Your task to perform on an android device: turn off notifications in google photos Image 0: 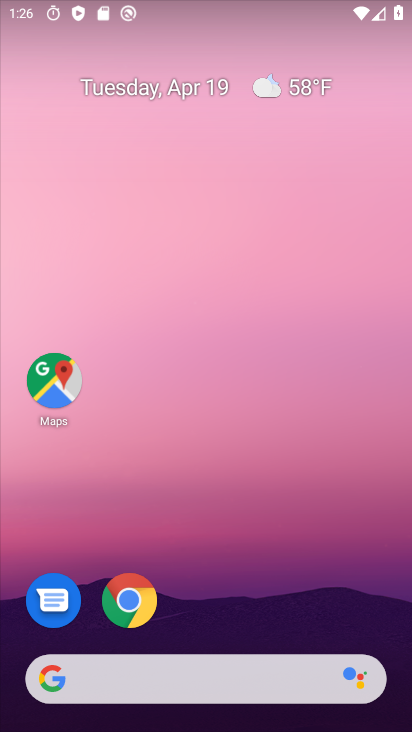
Step 0: drag from (215, 717) to (318, 185)
Your task to perform on an android device: turn off notifications in google photos Image 1: 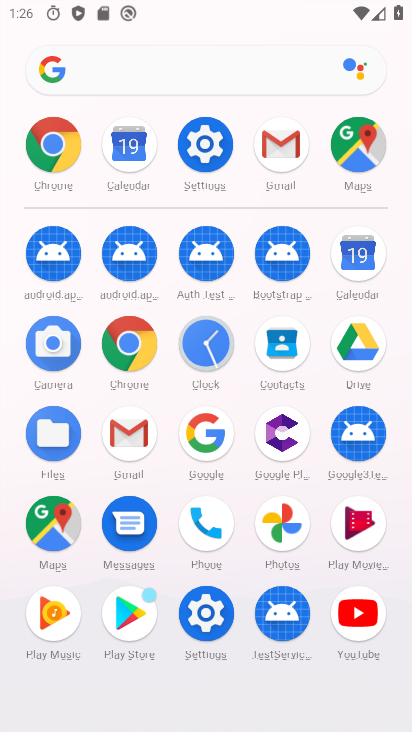
Step 1: click (286, 510)
Your task to perform on an android device: turn off notifications in google photos Image 2: 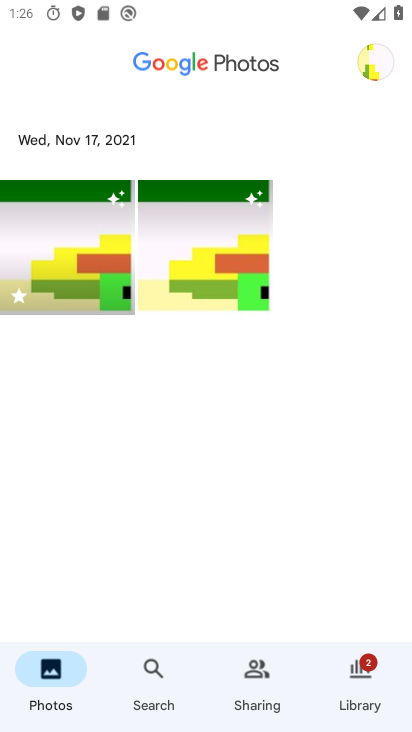
Step 2: click (366, 69)
Your task to perform on an android device: turn off notifications in google photos Image 3: 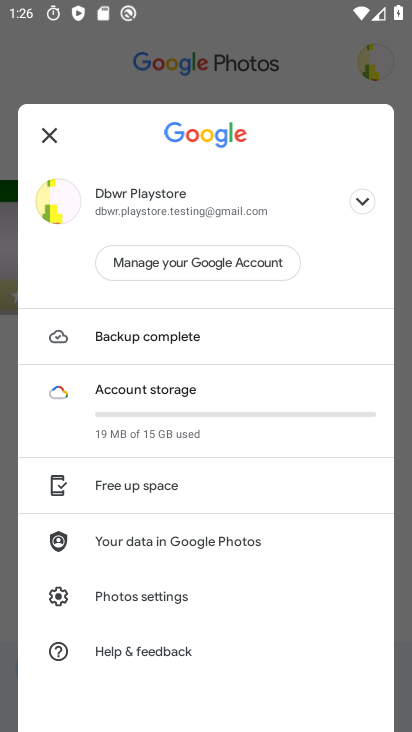
Step 3: click (105, 602)
Your task to perform on an android device: turn off notifications in google photos Image 4: 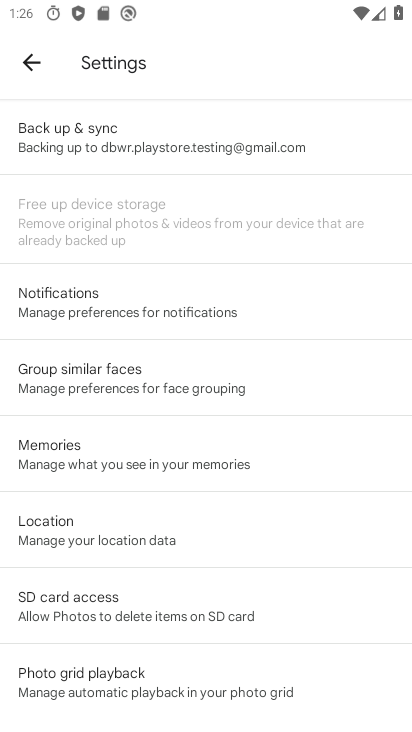
Step 4: drag from (197, 493) to (257, 311)
Your task to perform on an android device: turn off notifications in google photos Image 5: 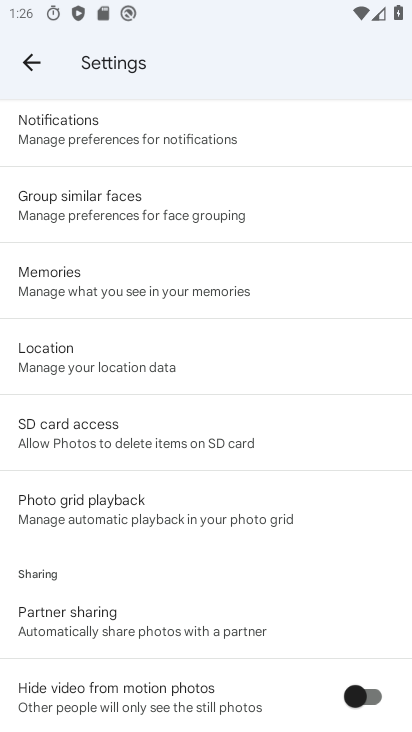
Step 5: drag from (142, 522) to (196, 417)
Your task to perform on an android device: turn off notifications in google photos Image 6: 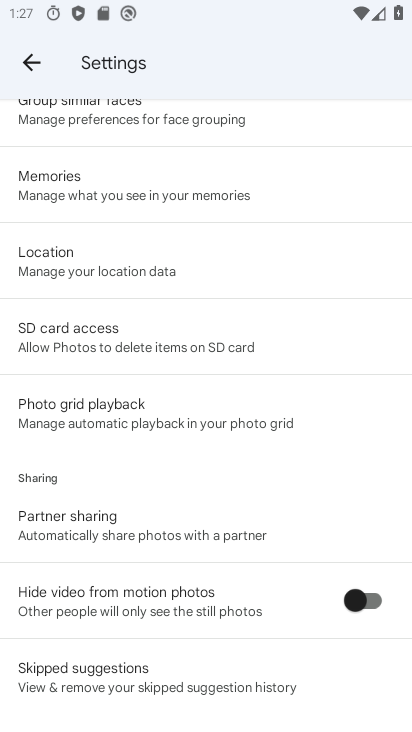
Step 6: drag from (140, 188) to (100, 325)
Your task to perform on an android device: turn off notifications in google photos Image 7: 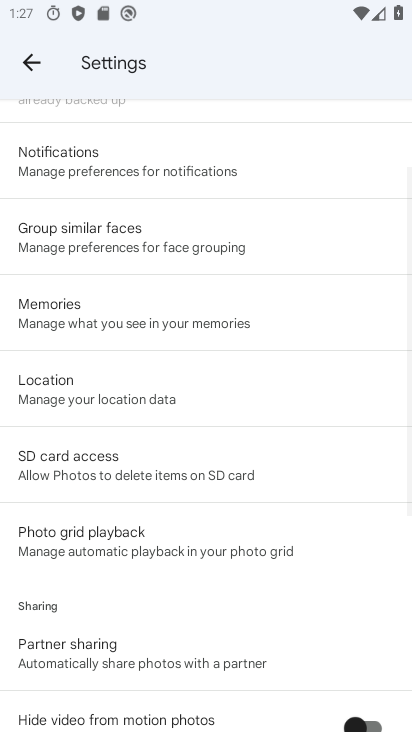
Step 7: click (168, 182)
Your task to perform on an android device: turn off notifications in google photos Image 8: 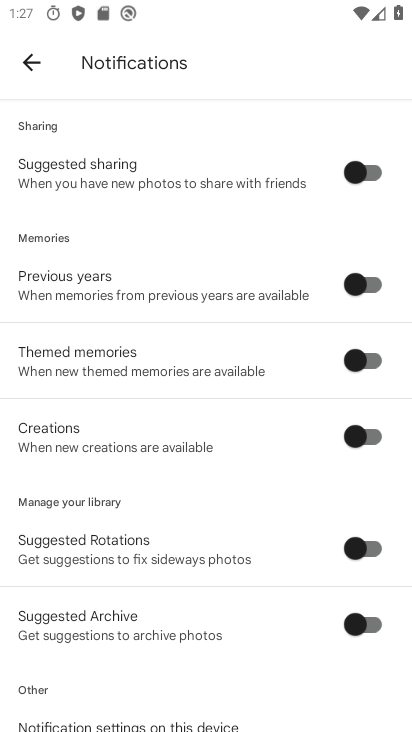
Step 8: drag from (163, 632) to (178, 547)
Your task to perform on an android device: turn off notifications in google photos Image 9: 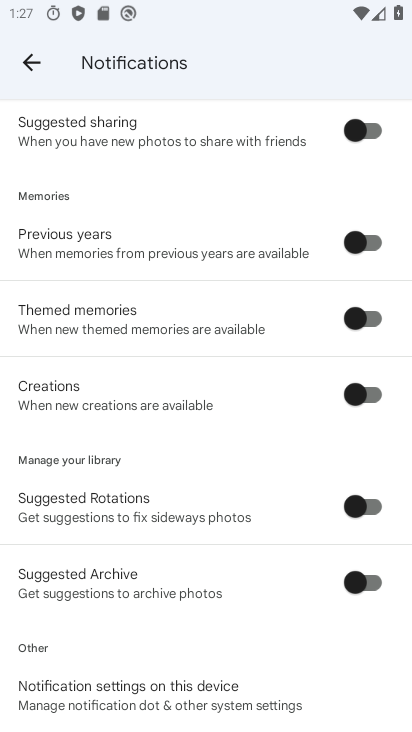
Step 9: click (134, 680)
Your task to perform on an android device: turn off notifications in google photos Image 10: 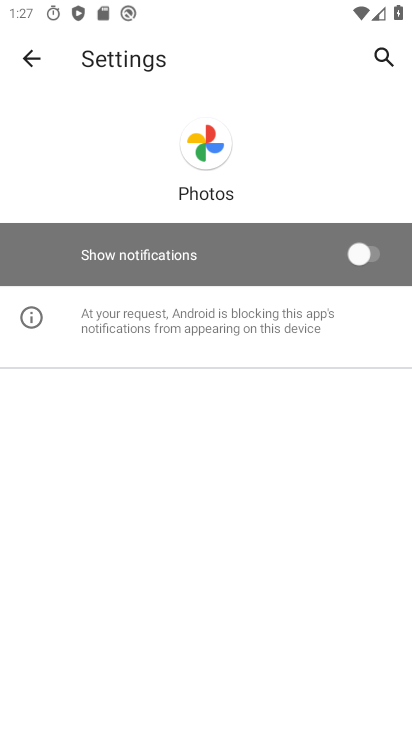
Step 10: click (379, 253)
Your task to perform on an android device: turn off notifications in google photos Image 11: 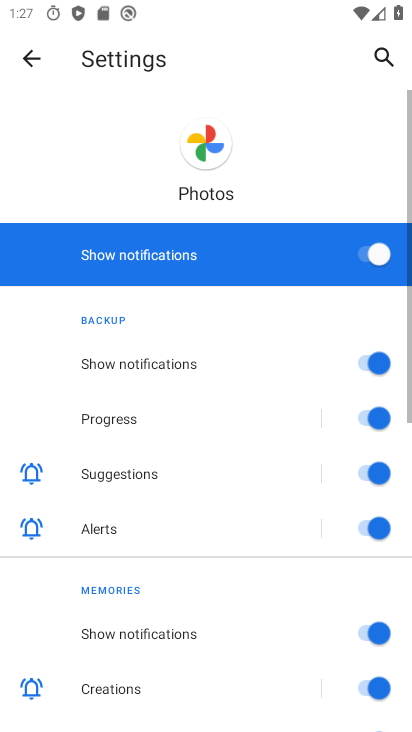
Step 11: click (374, 256)
Your task to perform on an android device: turn off notifications in google photos Image 12: 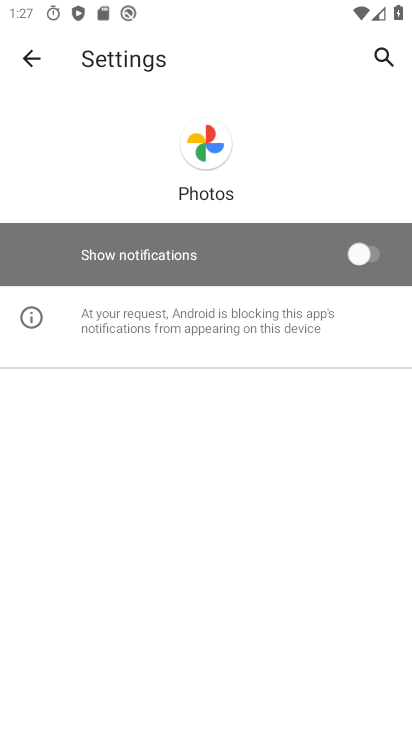
Step 12: task complete